Your task to perform on an android device: turn on data saver in the chrome app Image 0: 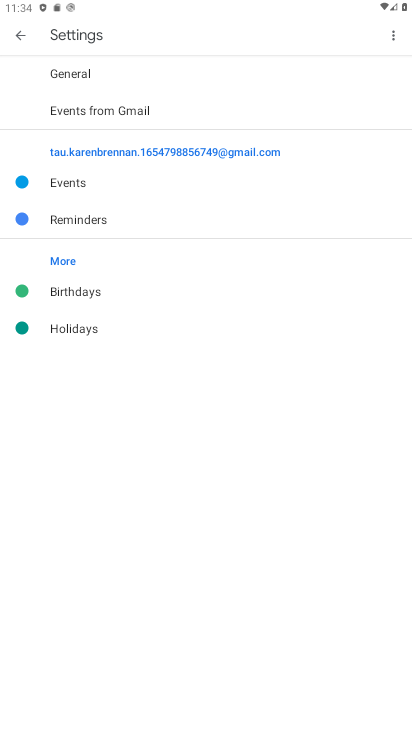
Step 0: press home button
Your task to perform on an android device: turn on data saver in the chrome app Image 1: 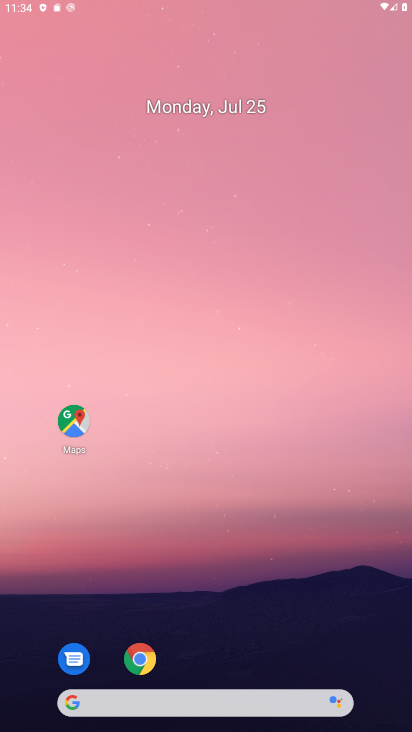
Step 1: drag from (271, 687) to (321, 201)
Your task to perform on an android device: turn on data saver in the chrome app Image 2: 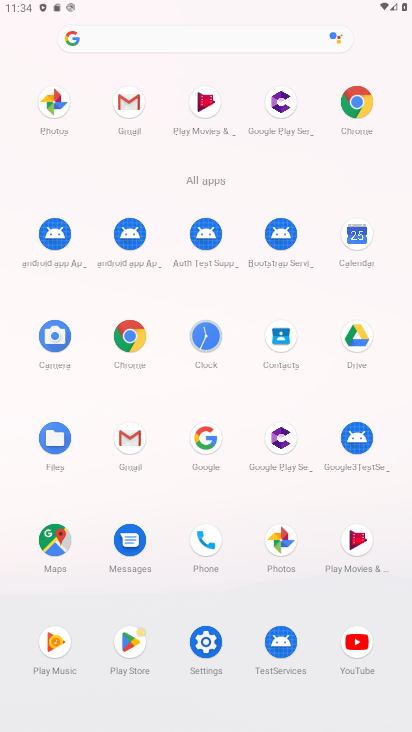
Step 2: click (349, 126)
Your task to perform on an android device: turn on data saver in the chrome app Image 3: 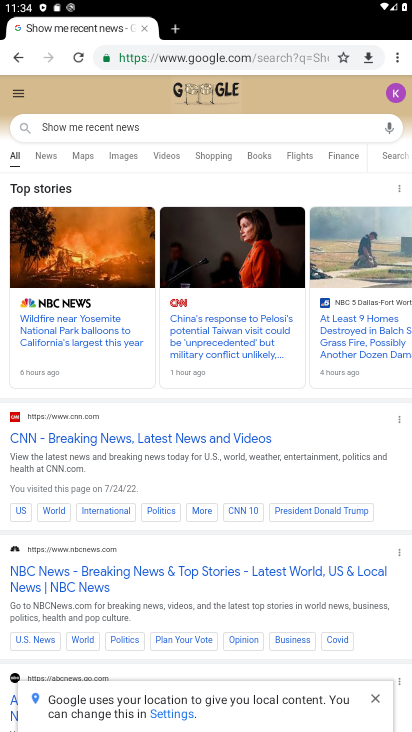
Step 3: drag from (393, 61) to (288, 399)
Your task to perform on an android device: turn on data saver in the chrome app Image 4: 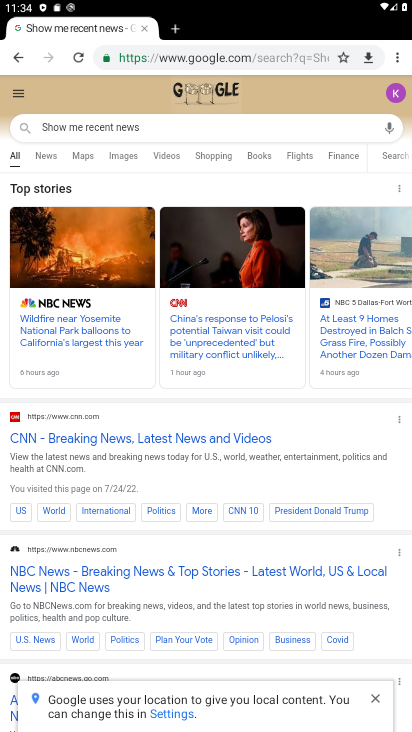
Step 4: press back button
Your task to perform on an android device: turn on data saver in the chrome app Image 5: 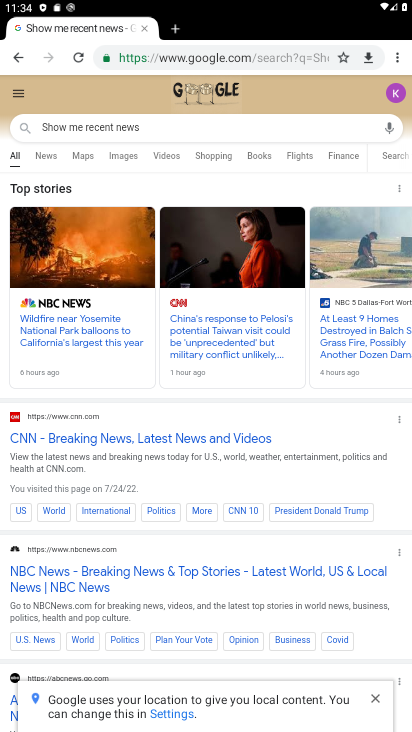
Step 5: drag from (399, 58) to (293, 379)
Your task to perform on an android device: turn on data saver in the chrome app Image 6: 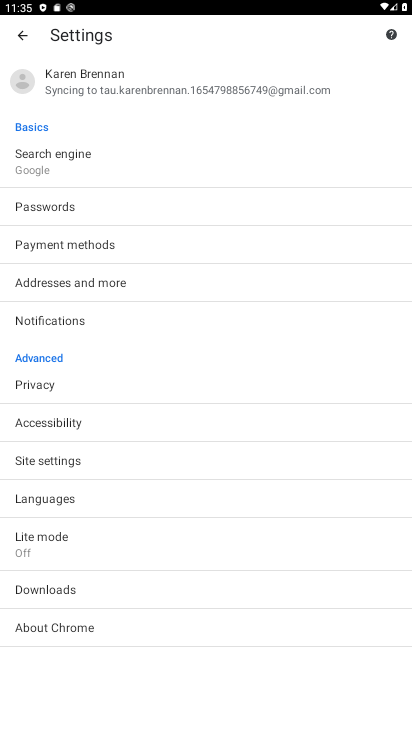
Step 6: click (67, 557)
Your task to perform on an android device: turn on data saver in the chrome app Image 7: 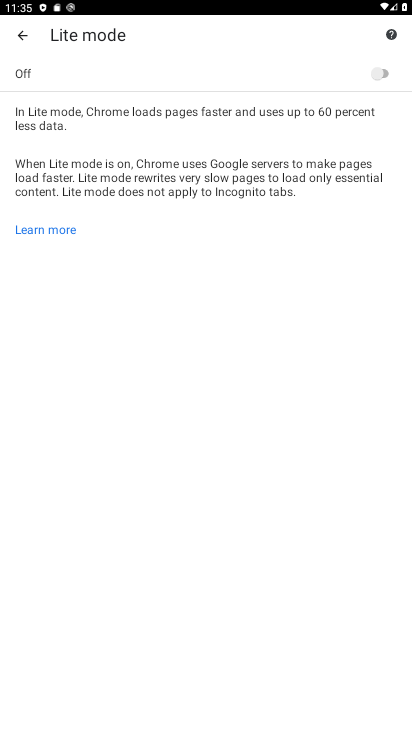
Step 7: click (244, 80)
Your task to perform on an android device: turn on data saver in the chrome app Image 8: 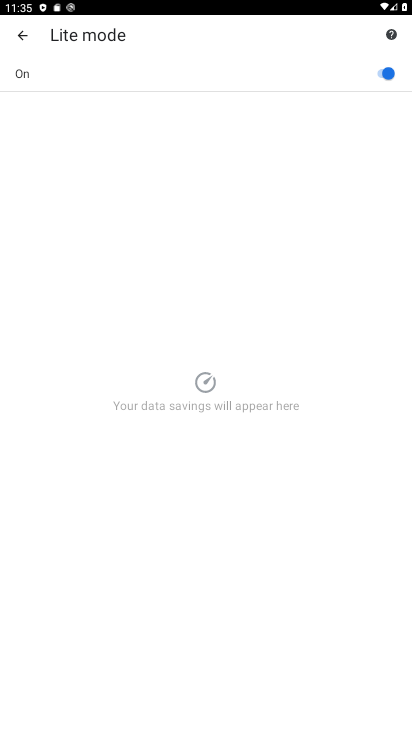
Step 8: task complete